Your task to perform on an android device: Clear the cart on amazon.com. Search for apple airpods on amazon.com, select the first entry, and add it to the cart. Image 0: 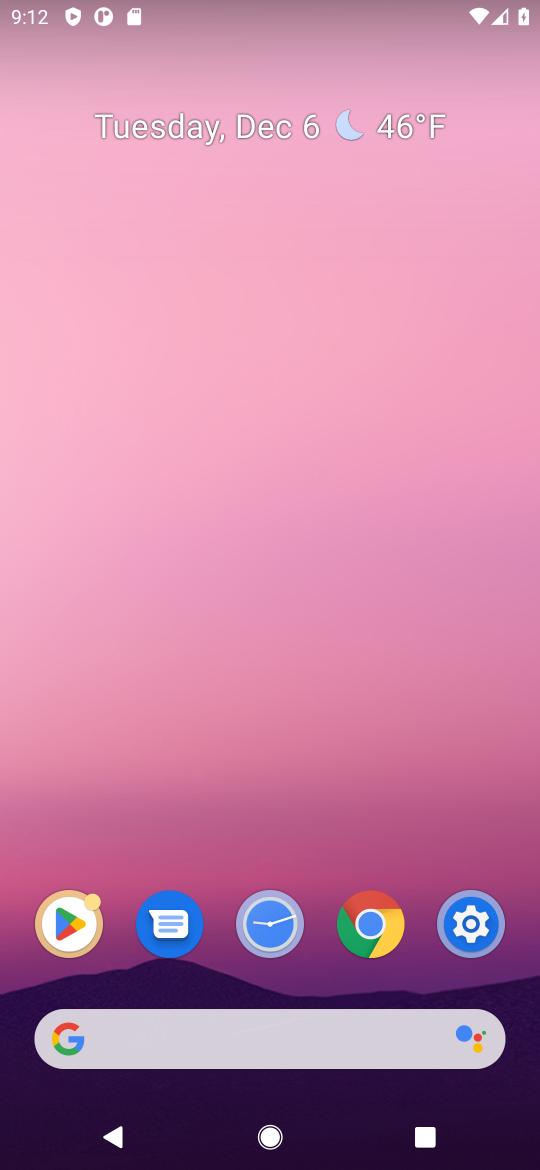
Step 0: click (317, 1043)
Your task to perform on an android device: Clear the cart on amazon.com. Search for apple airpods on amazon.com, select the first entry, and add it to the cart. Image 1: 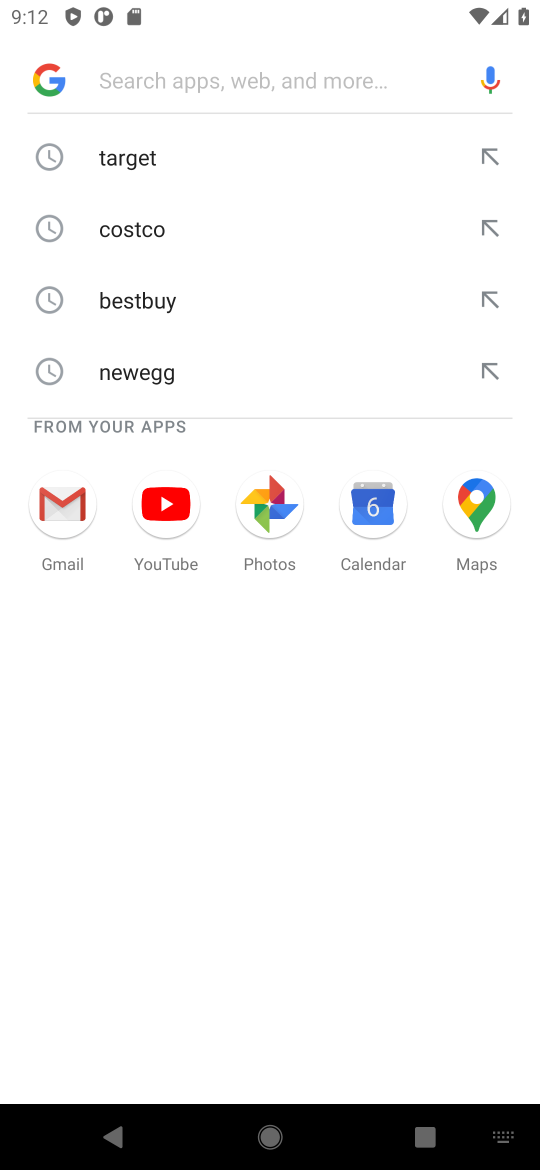
Step 1: type "amazon"
Your task to perform on an android device: Clear the cart on amazon.com. Search for apple airpods on amazon.com, select the first entry, and add it to the cart. Image 2: 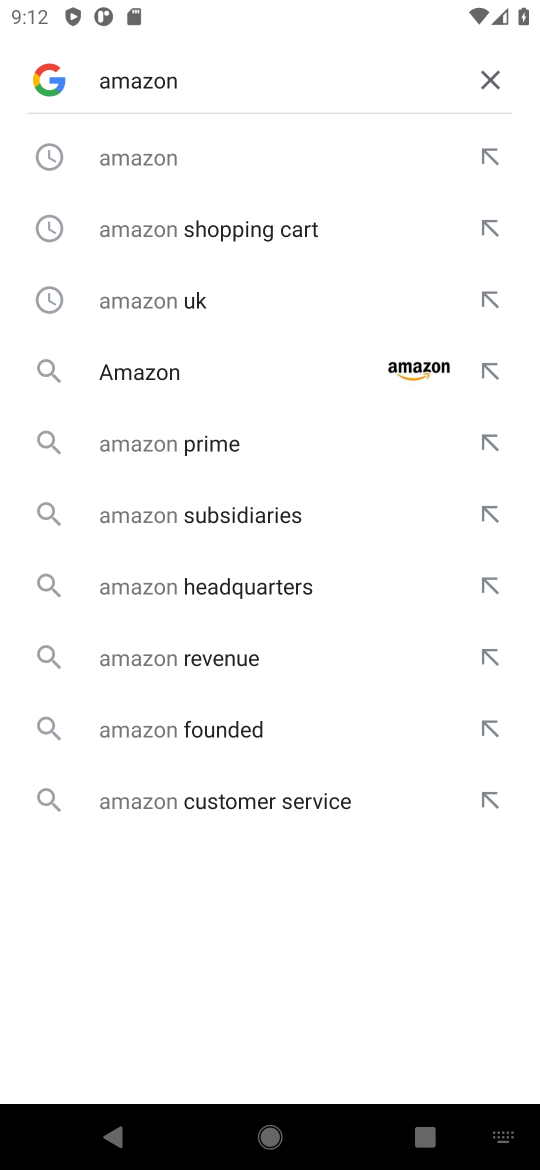
Step 2: click (235, 358)
Your task to perform on an android device: Clear the cart on amazon.com. Search for apple airpods on amazon.com, select the first entry, and add it to the cart. Image 3: 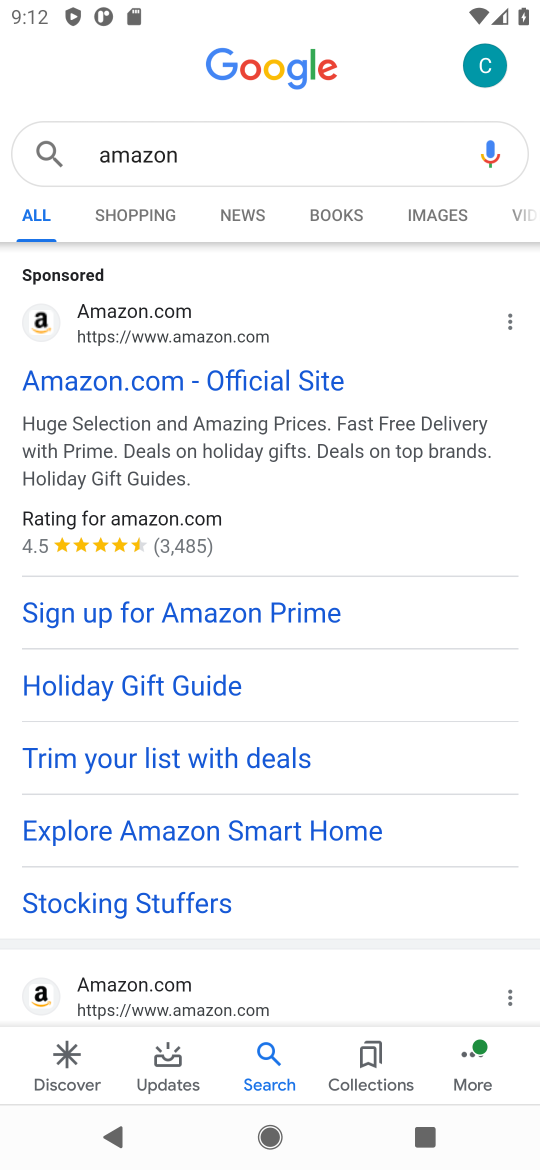
Step 3: click (235, 381)
Your task to perform on an android device: Clear the cart on amazon.com. Search for apple airpods on amazon.com, select the first entry, and add it to the cart. Image 4: 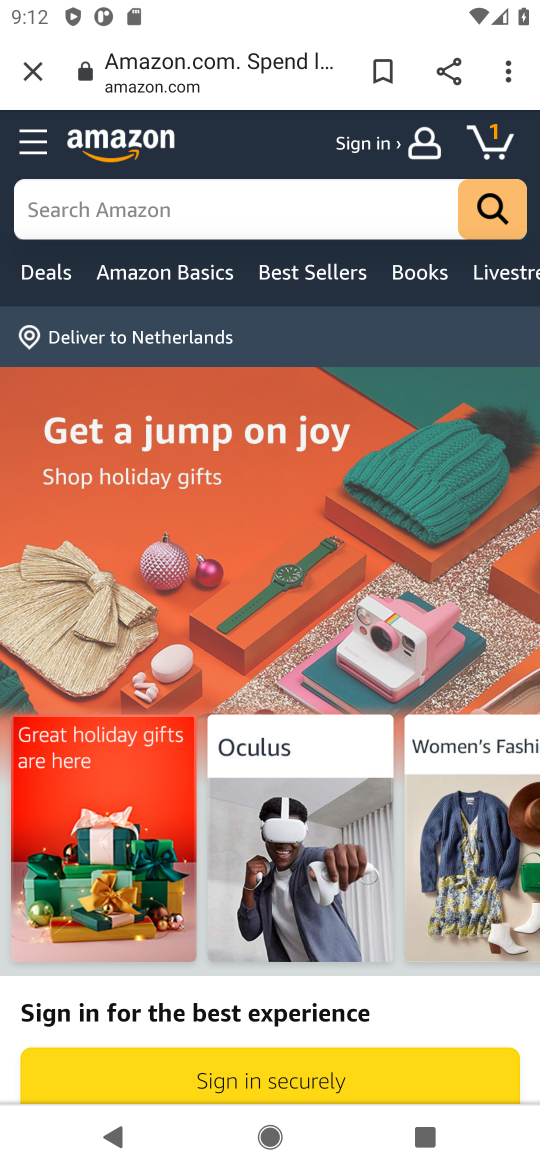
Step 4: click (150, 218)
Your task to perform on an android device: Clear the cart on amazon.com. Search for apple airpods on amazon.com, select the first entry, and add it to the cart. Image 5: 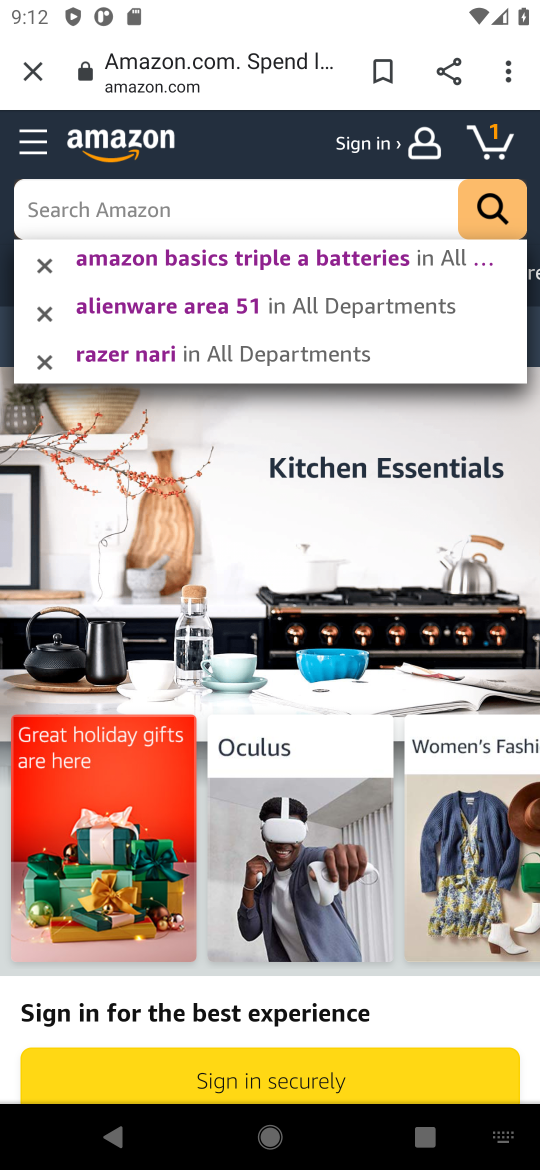
Step 5: type "apple airdops"
Your task to perform on an android device: Clear the cart on amazon.com. Search for apple airpods on amazon.com, select the first entry, and add it to the cart. Image 6: 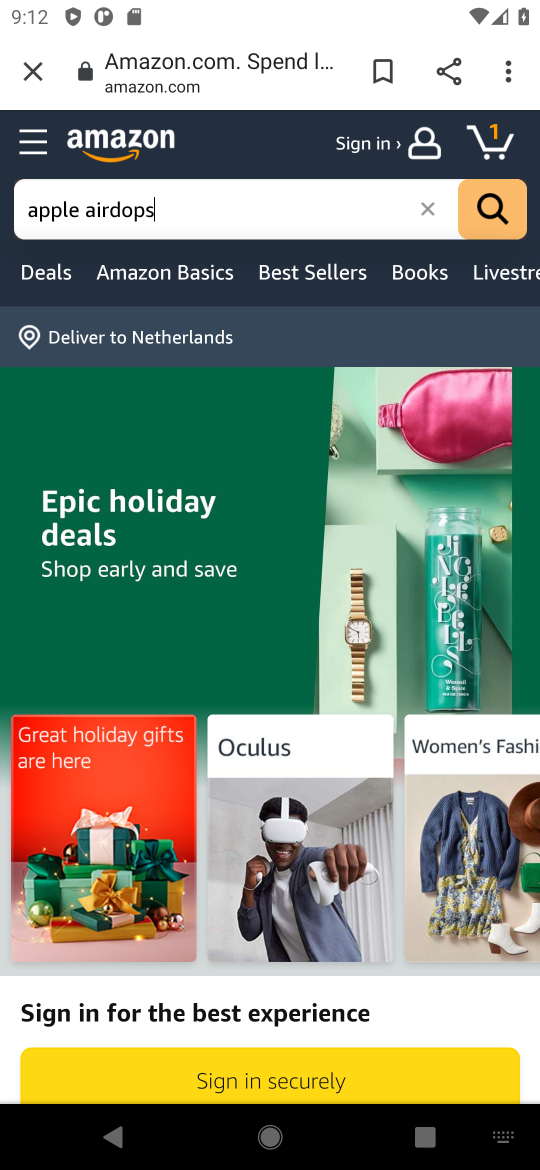
Step 6: click (485, 226)
Your task to perform on an android device: Clear the cart on amazon.com. Search for apple airpods on amazon.com, select the first entry, and add it to the cart. Image 7: 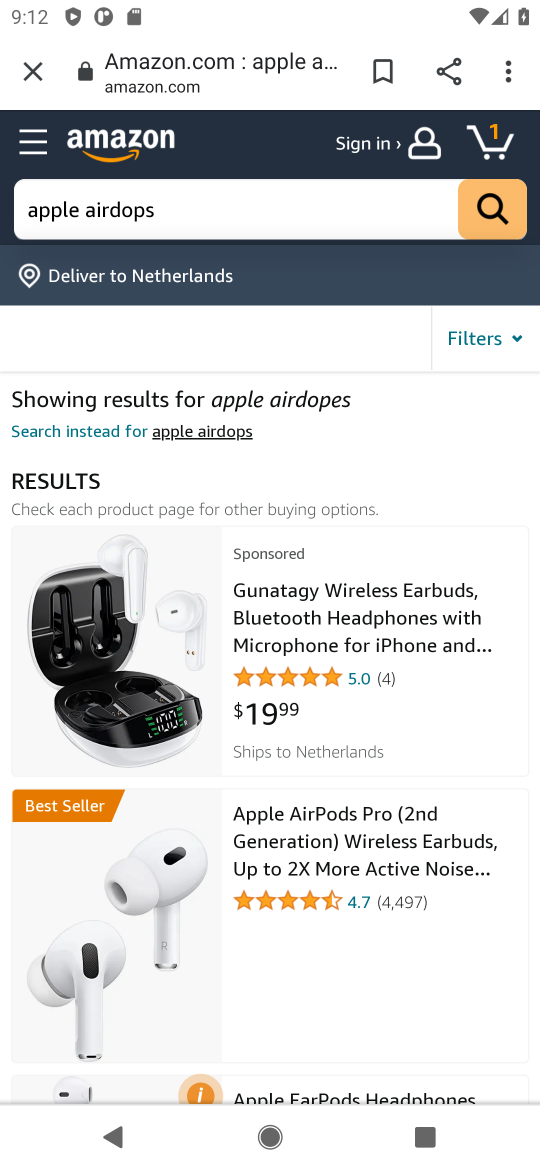
Step 7: click (382, 820)
Your task to perform on an android device: Clear the cart on amazon.com. Search for apple airpods on amazon.com, select the first entry, and add it to the cart. Image 8: 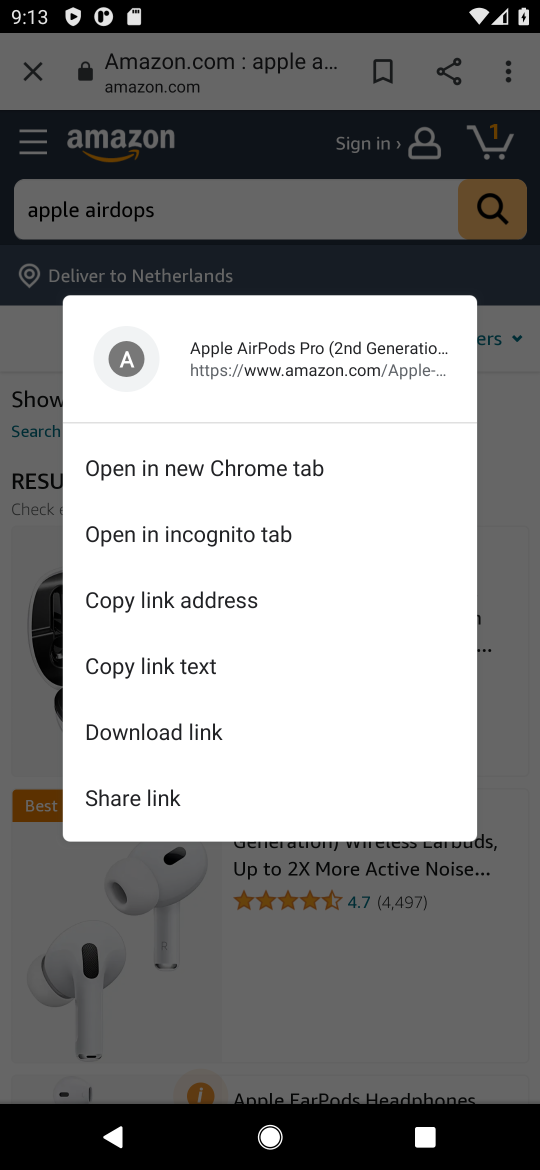
Step 8: click (270, 1014)
Your task to perform on an android device: Clear the cart on amazon.com. Search for apple airpods on amazon.com, select the first entry, and add it to the cart. Image 9: 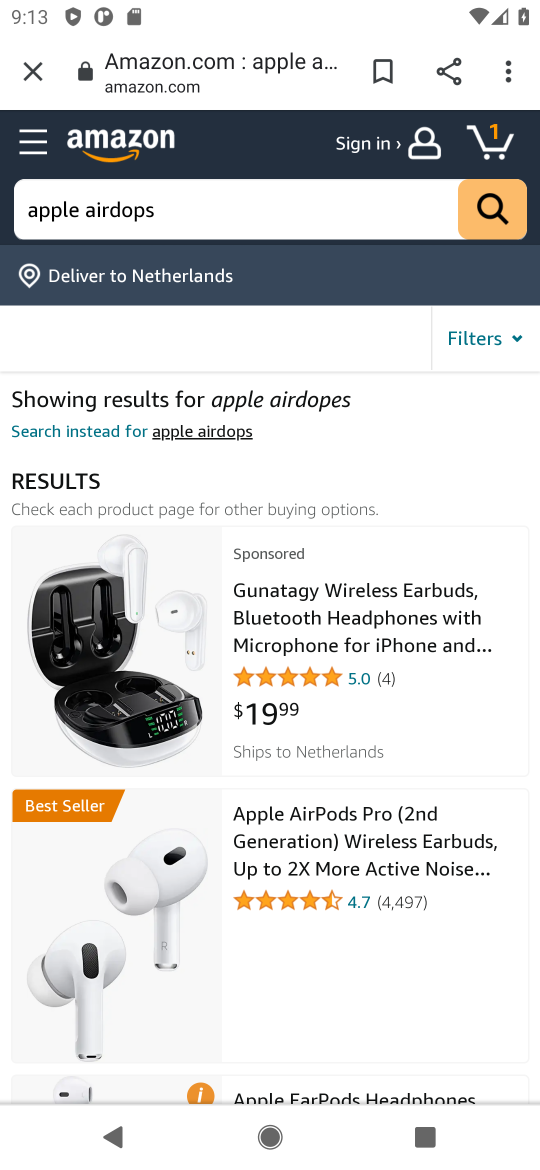
Step 9: click (283, 862)
Your task to perform on an android device: Clear the cart on amazon.com. Search for apple airpods on amazon.com, select the first entry, and add it to the cart. Image 10: 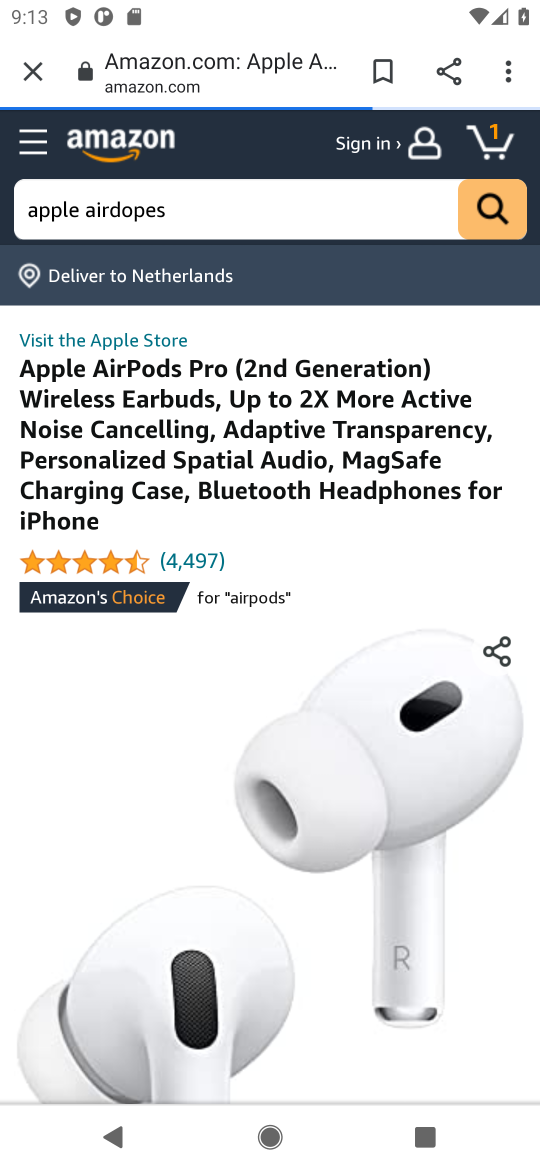
Step 10: drag from (314, 949) to (357, 395)
Your task to perform on an android device: Clear the cart on amazon.com. Search for apple airpods on amazon.com, select the first entry, and add it to the cart. Image 11: 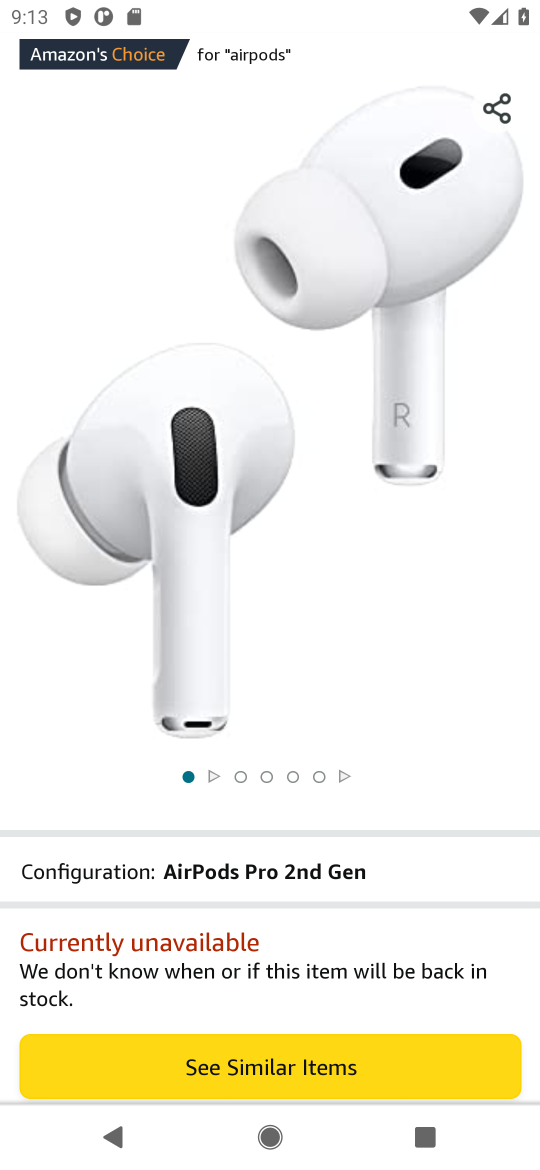
Step 11: drag from (356, 981) to (382, 673)
Your task to perform on an android device: Clear the cart on amazon.com. Search for apple airpods on amazon.com, select the first entry, and add it to the cart. Image 12: 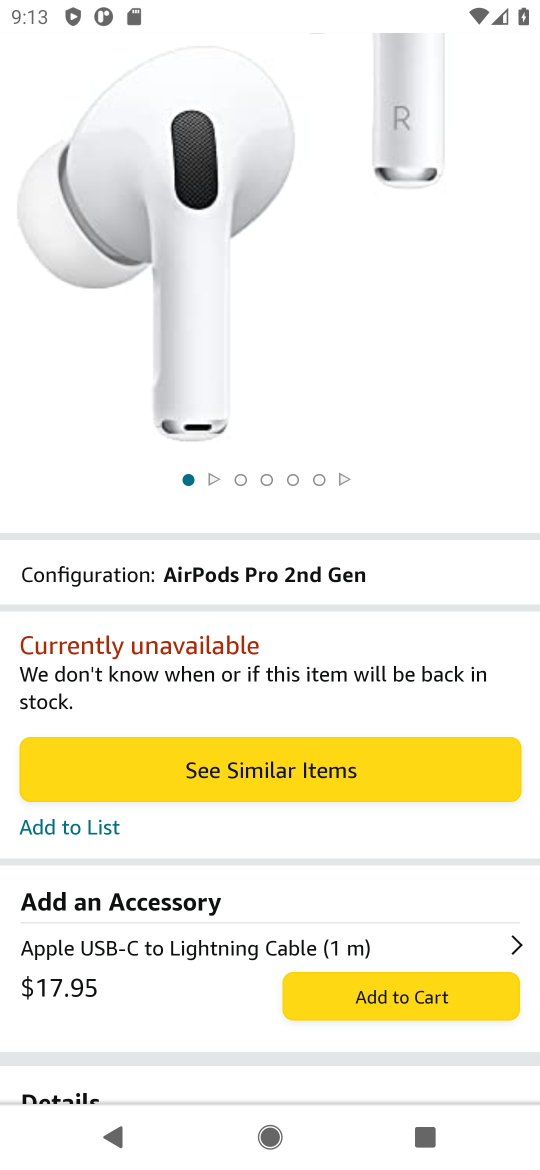
Step 12: click (428, 1013)
Your task to perform on an android device: Clear the cart on amazon.com. Search for apple airpods on amazon.com, select the first entry, and add it to the cart. Image 13: 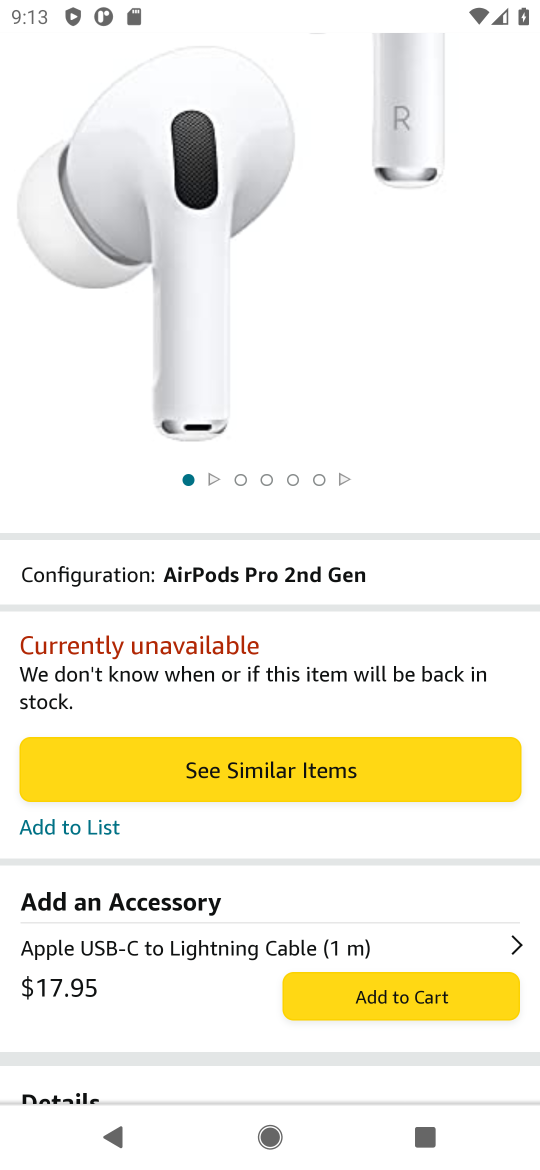
Step 13: click (452, 989)
Your task to perform on an android device: Clear the cart on amazon.com. Search for apple airpods on amazon.com, select the first entry, and add it to the cart. Image 14: 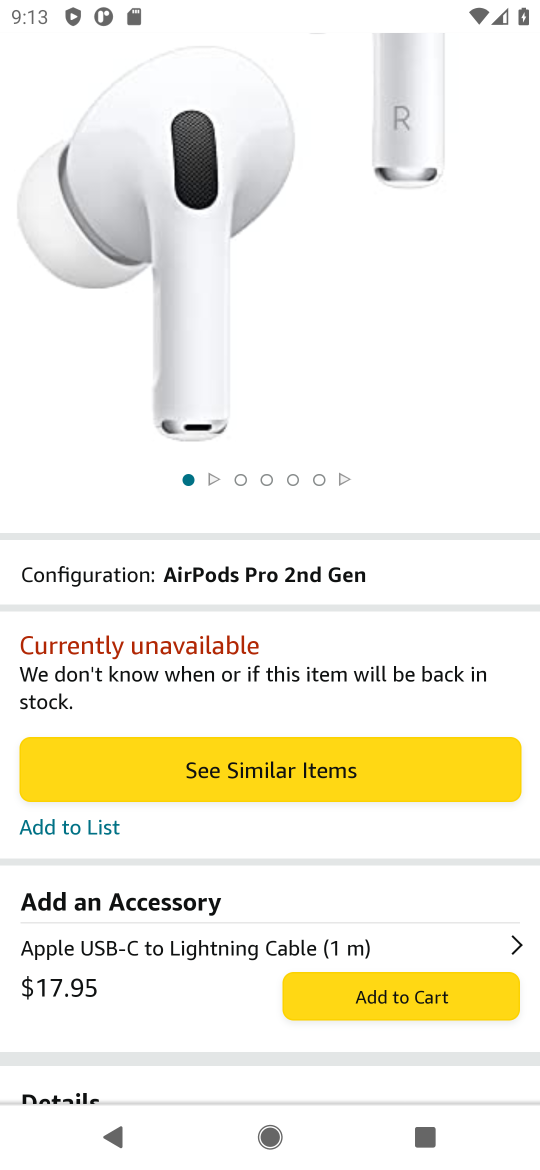
Step 14: click (411, 1004)
Your task to perform on an android device: Clear the cart on amazon.com. Search for apple airpods on amazon.com, select the first entry, and add it to the cart. Image 15: 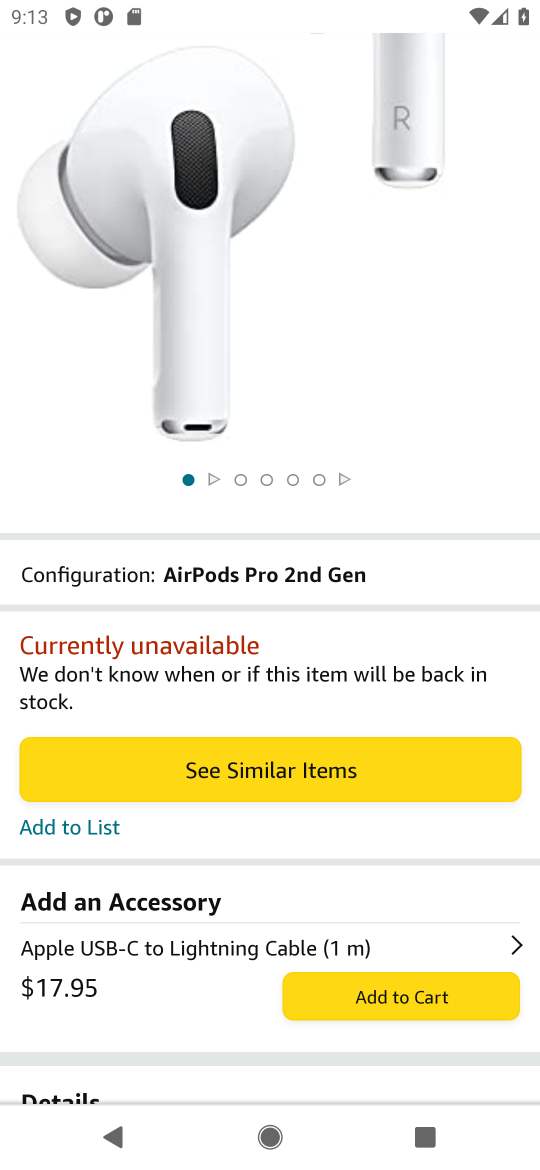
Step 15: task complete